Your task to perform on an android device: turn on priority inbox in the gmail app Image 0: 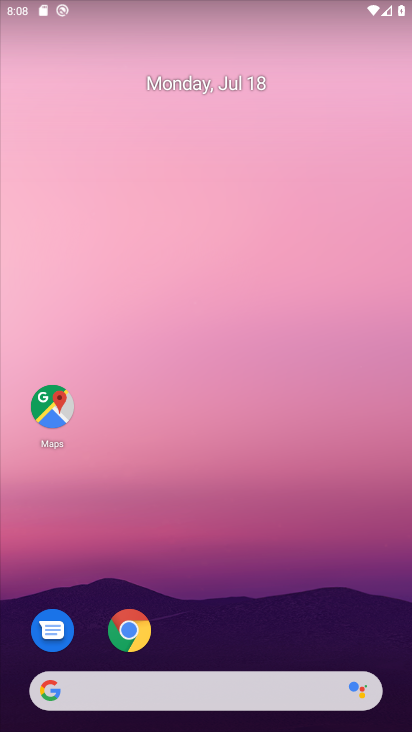
Step 0: drag from (216, 620) to (269, 172)
Your task to perform on an android device: turn on priority inbox in the gmail app Image 1: 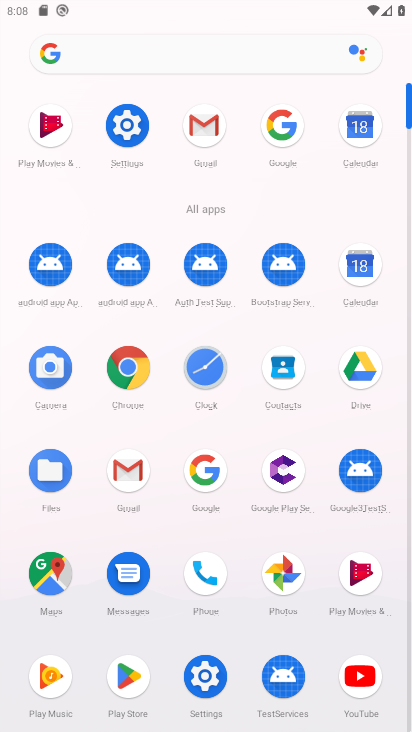
Step 1: click (207, 124)
Your task to perform on an android device: turn on priority inbox in the gmail app Image 2: 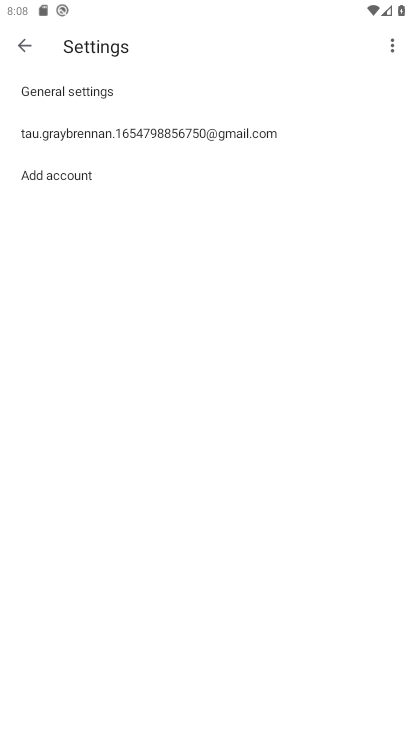
Step 2: click (273, 140)
Your task to perform on an android device: turn on priority inbox in the gmail app Image 3: 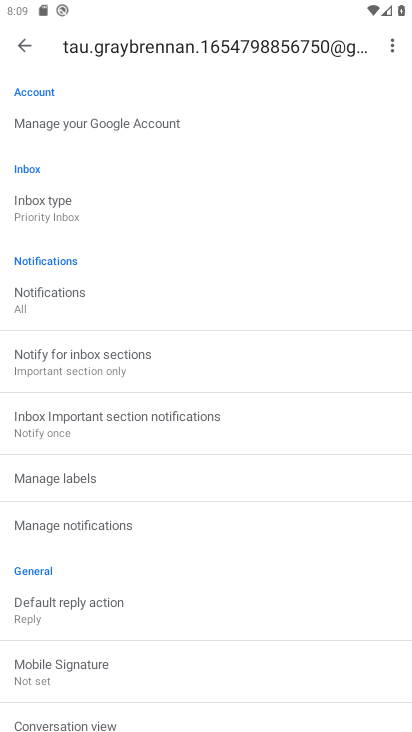
Step 3: click (86, 216)
Your task to perform on an android device: turn on priority inbox in the gmail app Image 4: 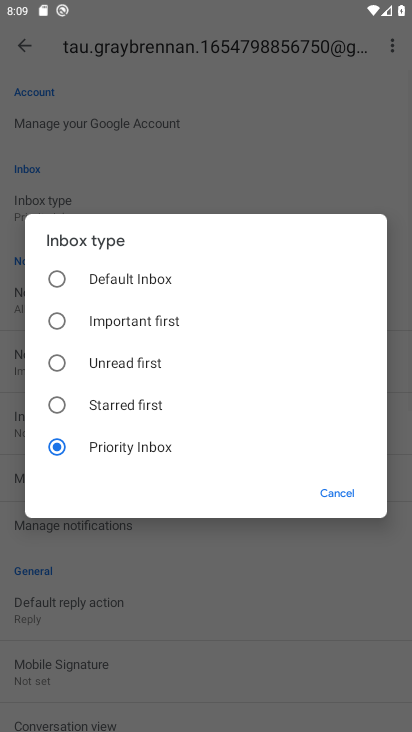
Step 4: task complete